Your task to perform on an android device: Open the calendar app, open the side menu, and click the "Day" option Image 0: 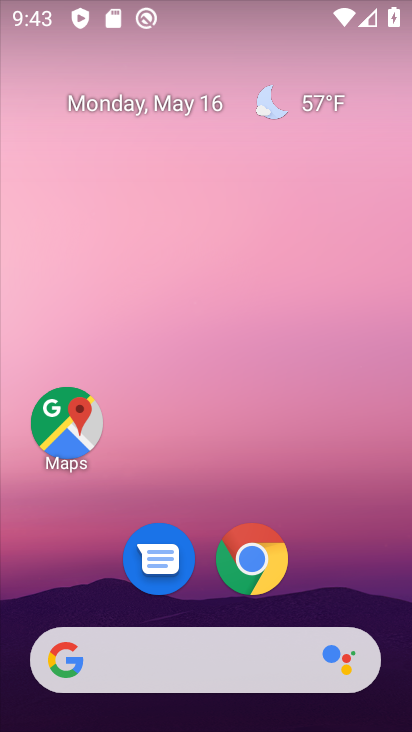
Step 0: drag from (388, 564) to (245, 142)
Your task to perform on an android device: Open the calendar app, open the side menu, and click the "Day" option Image 1: 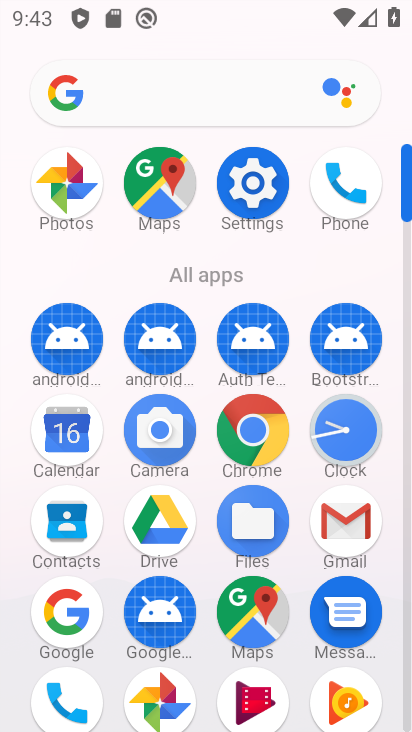
Step 1: click (80, 430)
Your task to perform on an android device: Open the calendar app, open the side menu, and click the "Day" option Image 2: 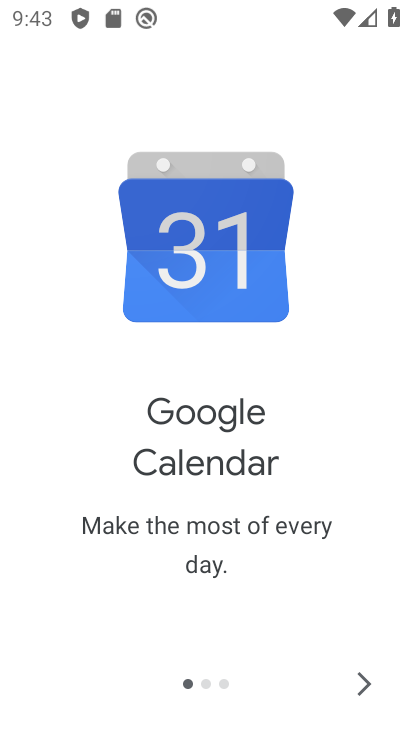
Step 2: click (367, 673)
Your task to perform on an android device: Open the calendar app, open the side menu, and click the "Day" option Image 3: 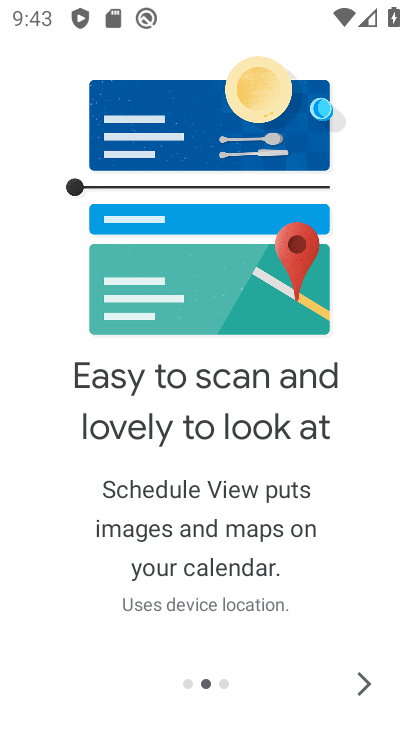
Step 3: click (367, 673)
Your task to perform on an android device: Open the calendar app, open the side menu, and click the "Day" option Image 4: 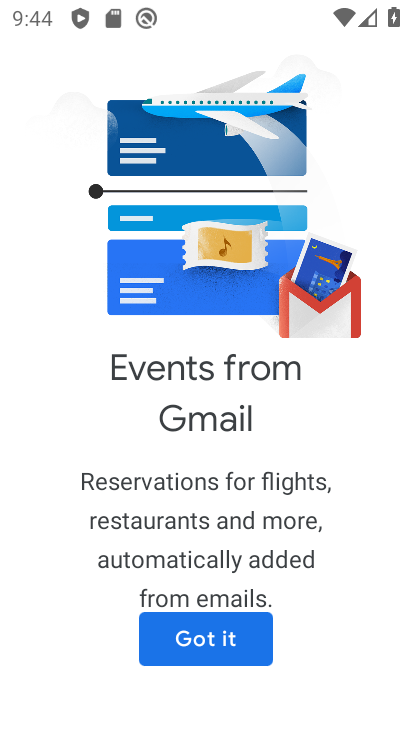
Step 4: click (212, 628)
Your task to perform on an android device: Open the calendar app, open the side menu, and click the "Day" option Image 5: 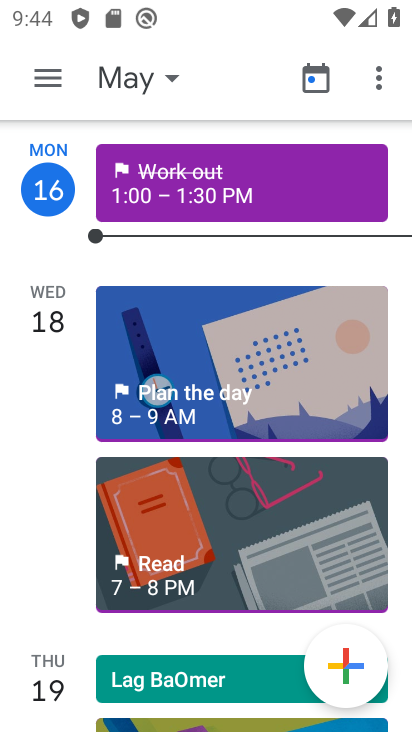
Step 5: click (49, 76)
Your task to perform on an android device: Open the calendar app, open the side menu, and click the "Day" option Image 6: 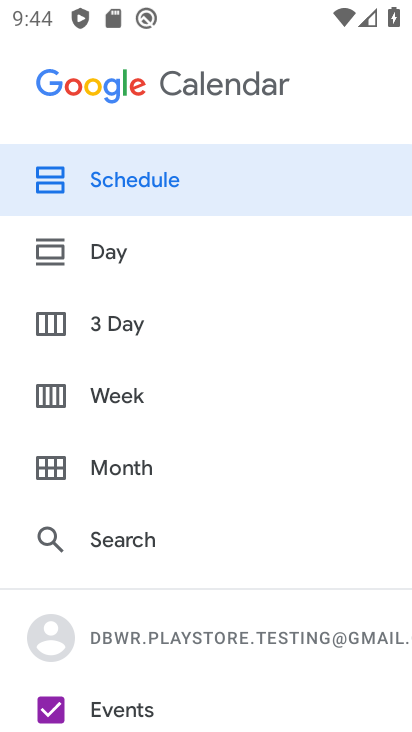
Step 6: click (112, 253)
Your task to perform on an android device: Open the calendar app, open the side menu, and click the "Day" option Image 7: 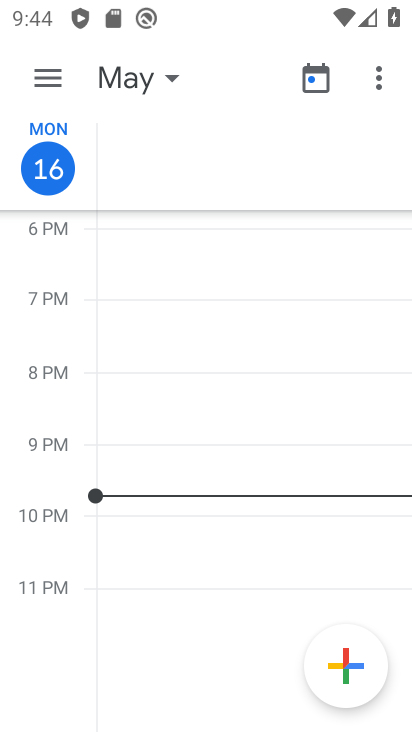
Step 7: task complete